Your task to perform on an android device: check google app version Image 0: 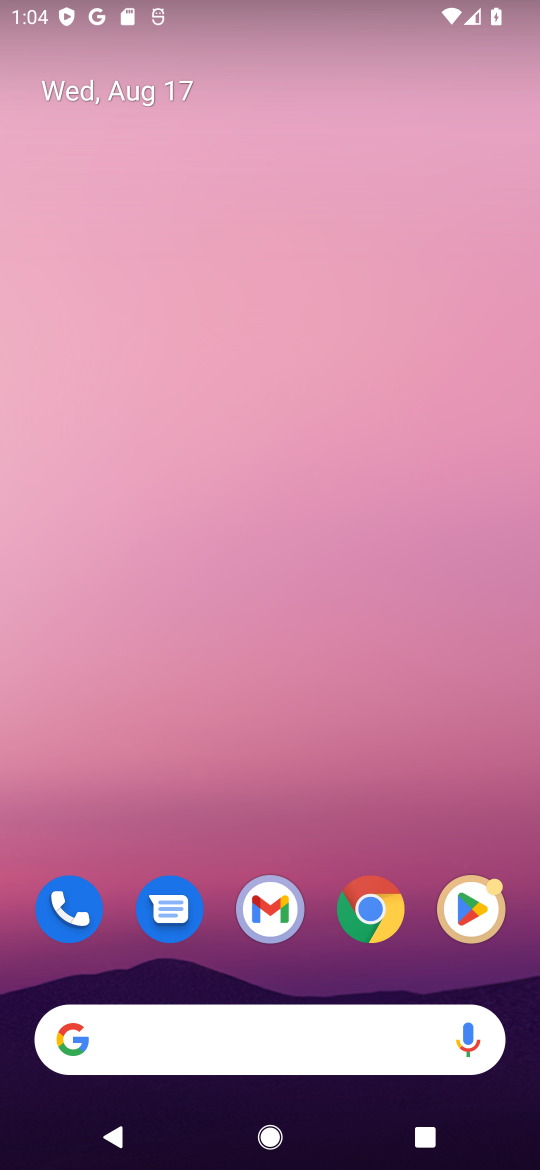
Step 0: drag from (312, 790) to (238, 237)
Your task to perform on an android device: check google app version Image 1: 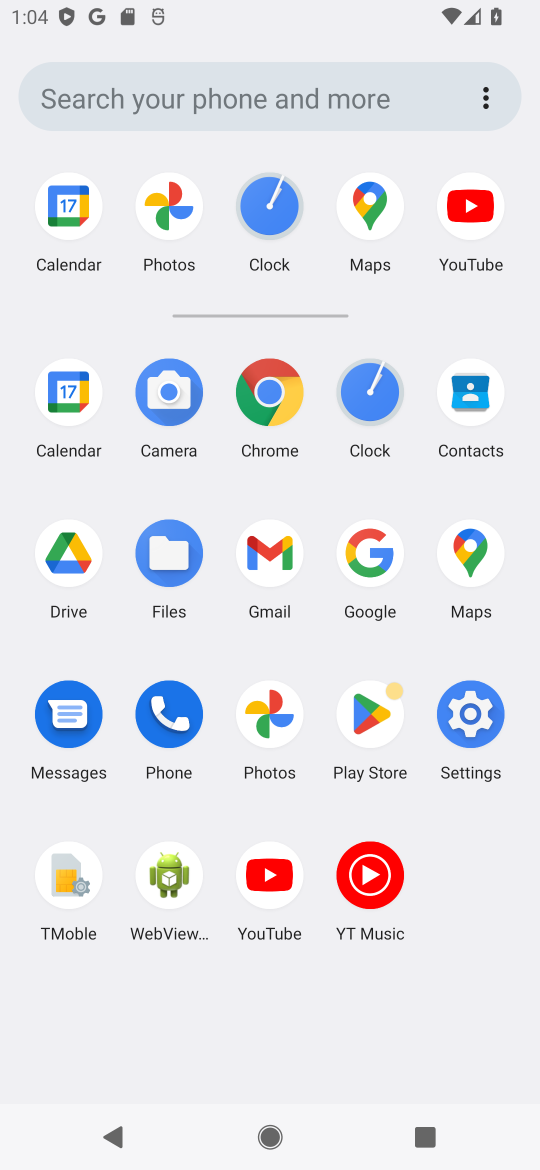
Step 1: click (359, 558)
Your task to perform on an android device: check google app version Image 2: 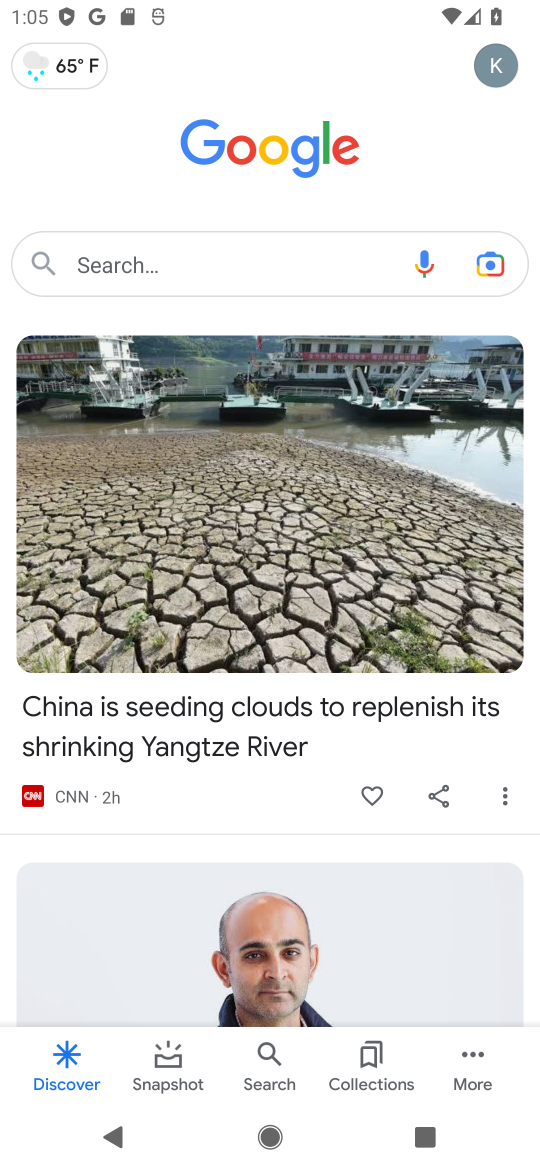
Step 2: click (505, 64)
Your task to perform on an android device: check google app version Image 3: 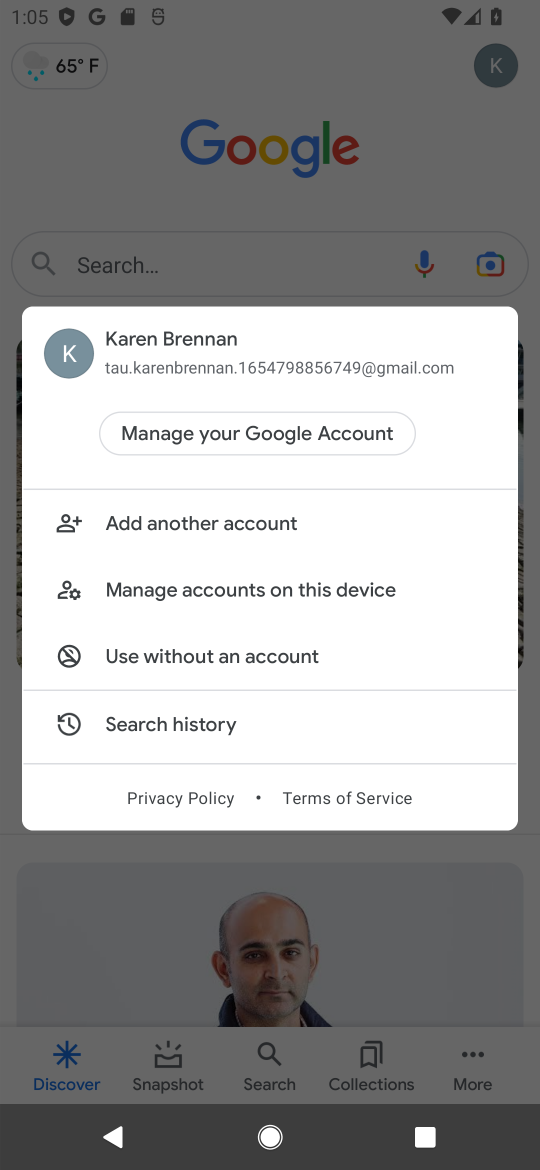
Step 3: click (507, 72)
Your task to perform on an android device: check google app version Image 4: 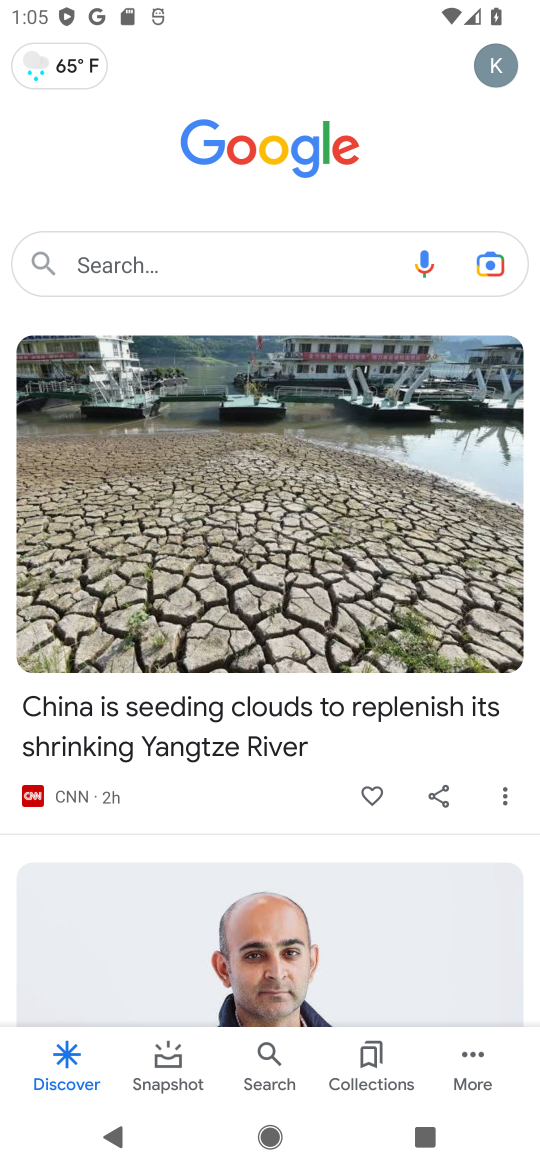
Step 4: click (476, 1051)
Your task to perform on an android device: check google app version Image 5: 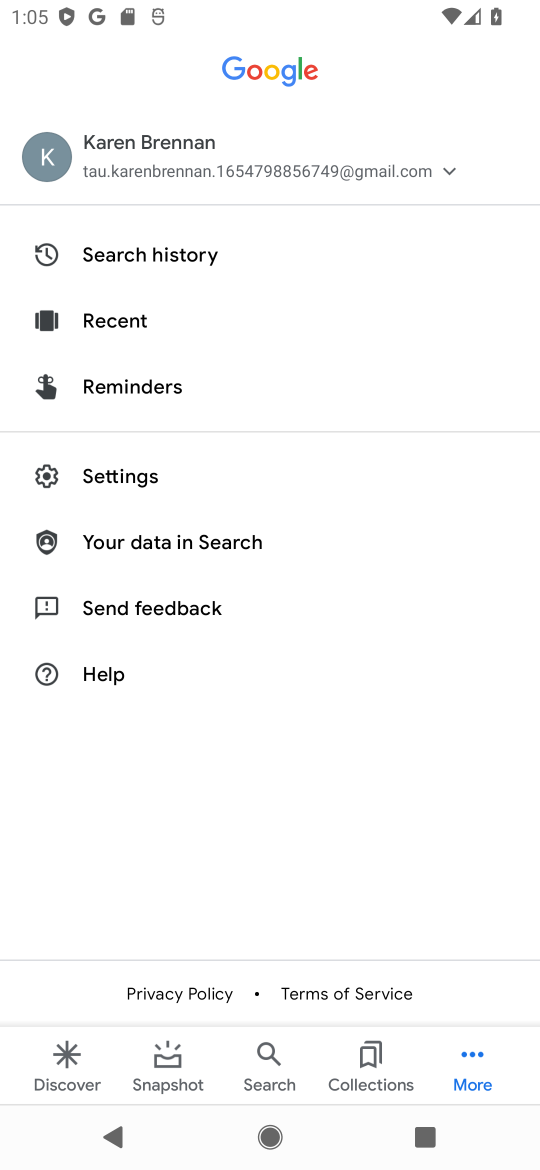
Step 5: click (104, 470)
Your task to perform on an android device: check google app version Image 6: 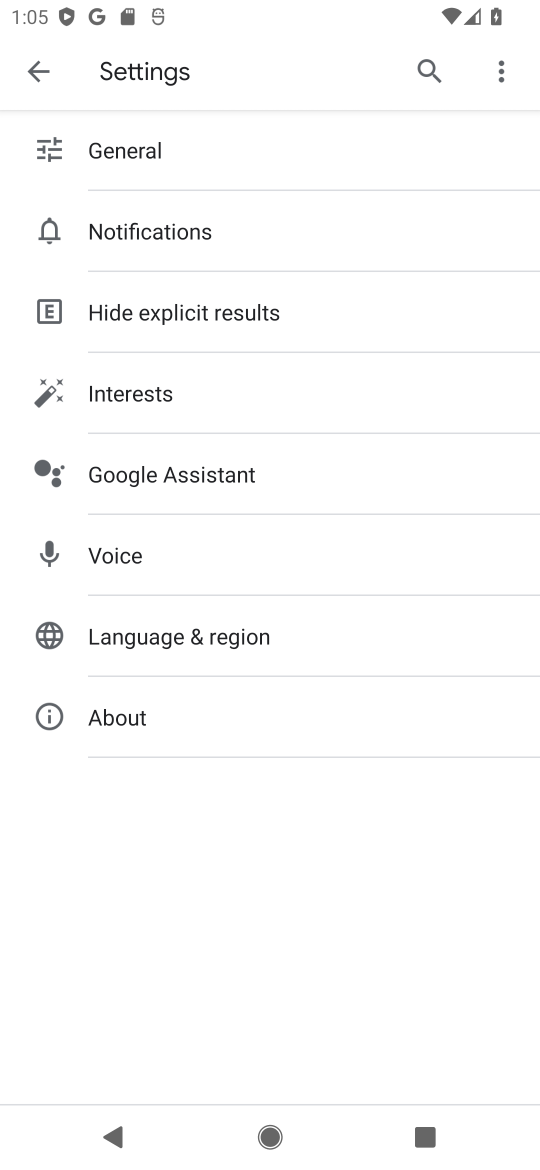
Step 6: click (126, 718)
Your task to perform on an android device: check google app version Image 7: 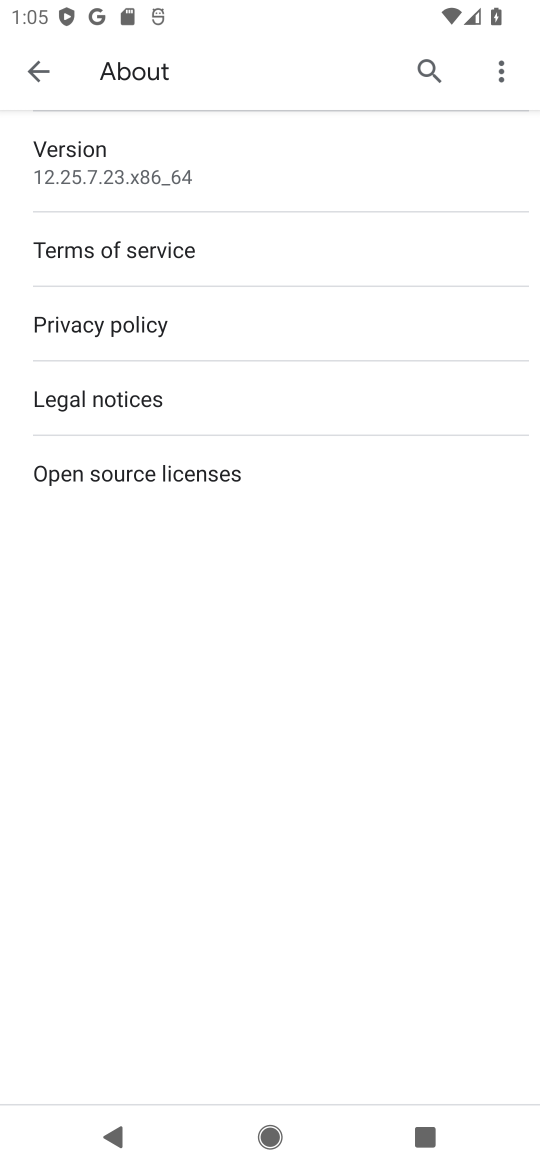
Step 7: task complete